Your task to perform on an android device: turn pop-ups off in chrome Image 0: 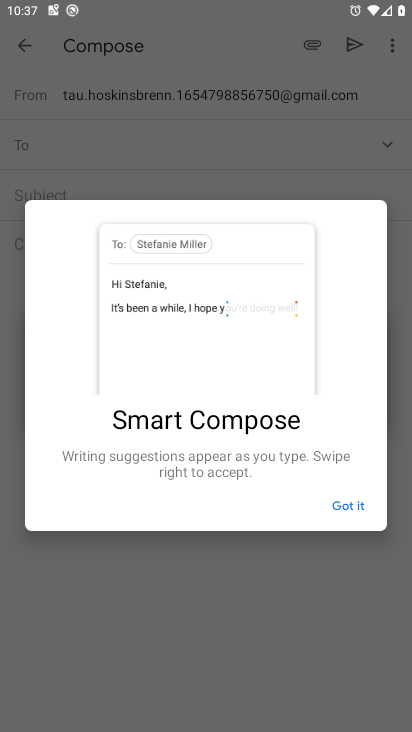
Step 0: press home button
Your task to perform on an android device: turn pop-ups off in chrome Image 1: 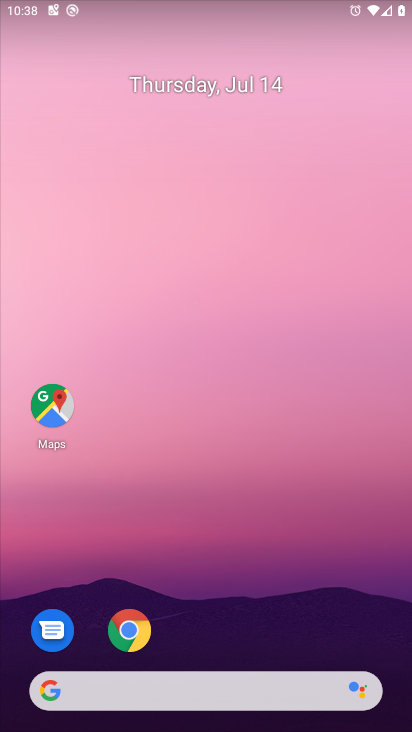
Step 1: click (114, 640)
Your task to perform on an android device: turn pop-ups off in chrome Image 2: 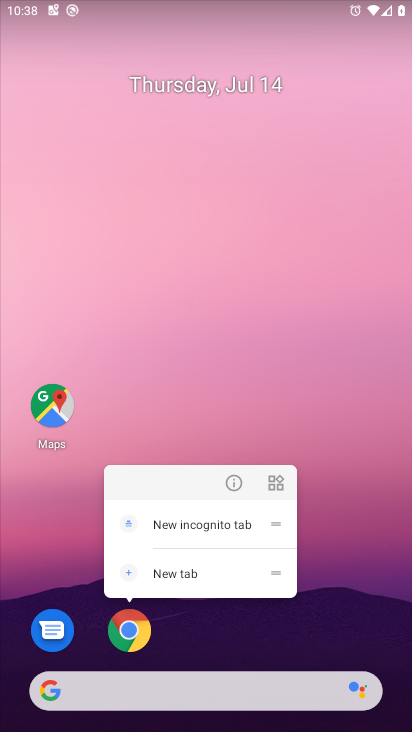
Step 2: click (122, 641)
Your task to perform on an android device: turn pop-ups off in chrome Image 3: 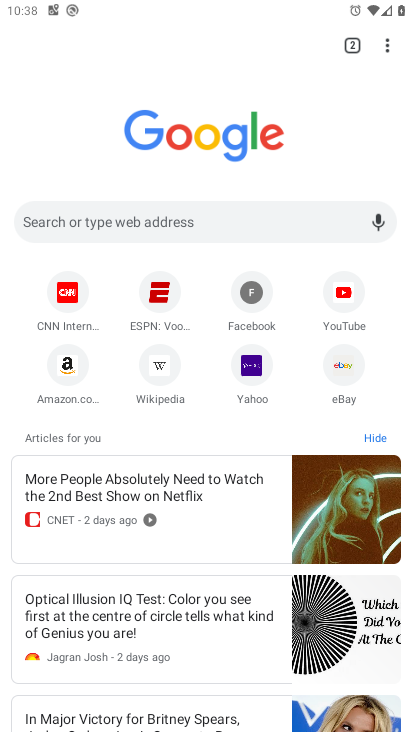
Step 3: click (385, 44)
Your task to perform on an android device: turn pop-ups off in chrome Image 4: 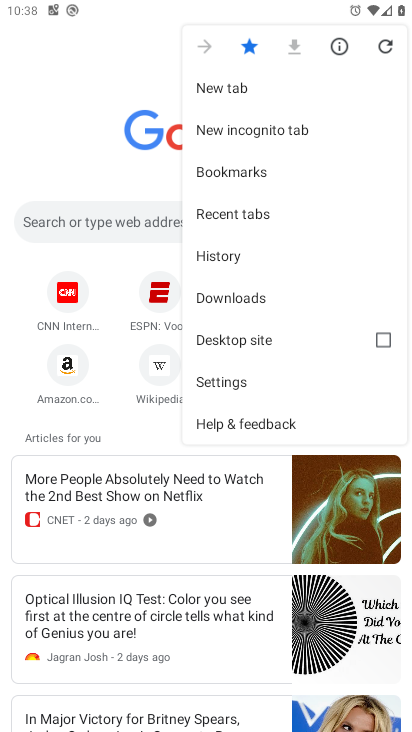
Step 4: click (217, 388)
Your task to perform on an android device: turn pop-ups off in chrome Image 5: 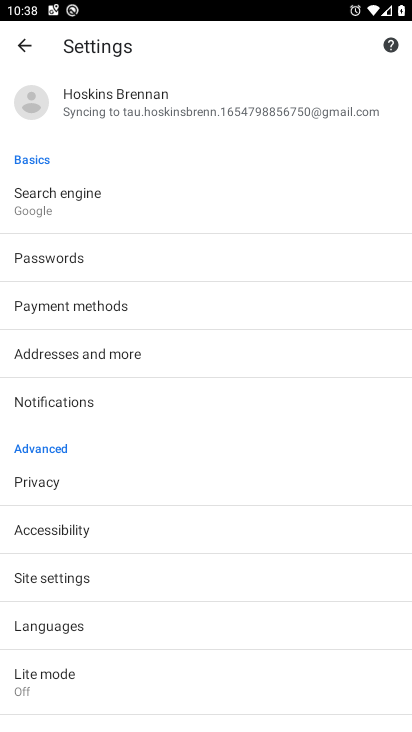
Step 5: click (52, 588)
Your task to perform on an android device: turn pop-ups off in chrome Image 6: 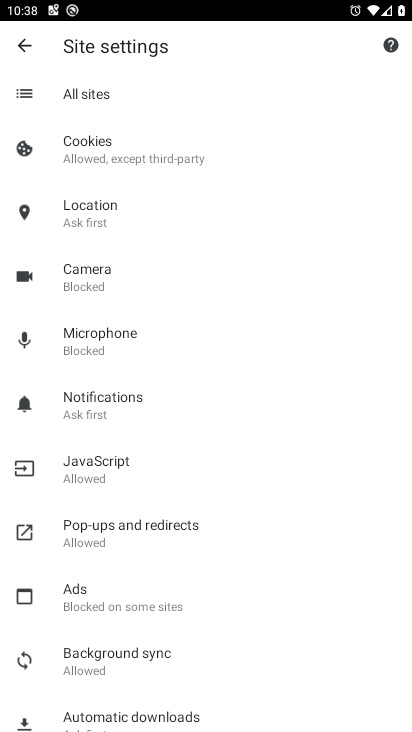
Step 6: click (129, 526)
Your task to perform on an android device: turn pop-ups off in chrome Image 7: 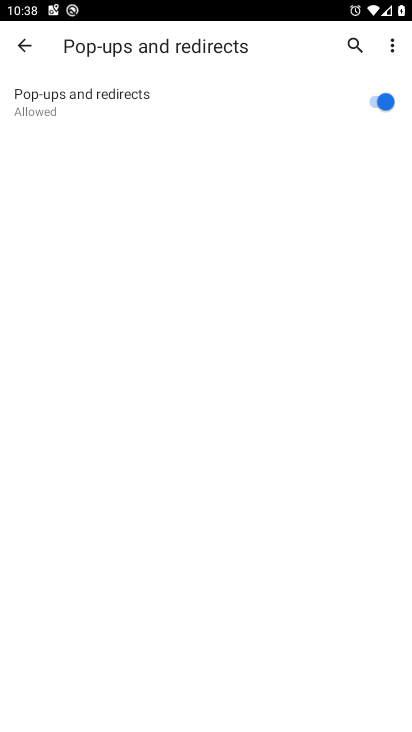
Step 7: click (378, 105)
Your task to perform on an android device: turn pop-ups off in chrome Image 8: 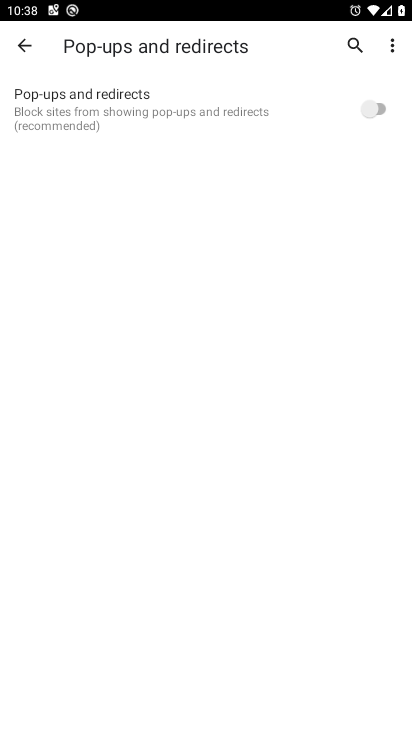
Step 8: task complete